Your task to perform on an android device: turn off translation in the chrome app Image 0: 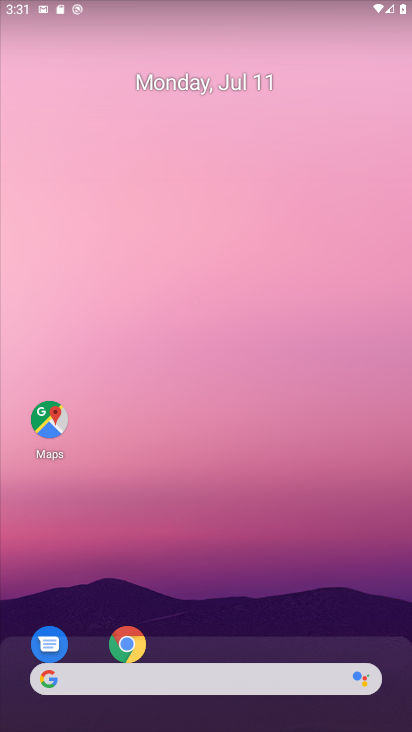
Step 0: drag from (208, 265) to (166, 20)
Your task to perform on an android device: turn off translation in the chrome app Image 1: 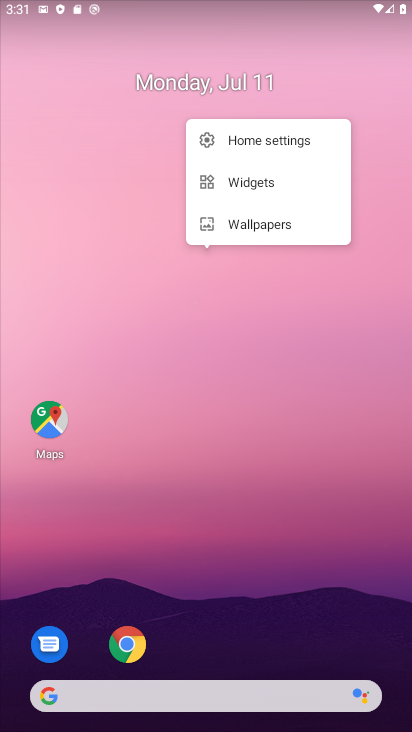
Step 1: drag from (248, 359) to (292, 142)
Your task to perform on an android device: turn off translation in the chrome app Image 2: 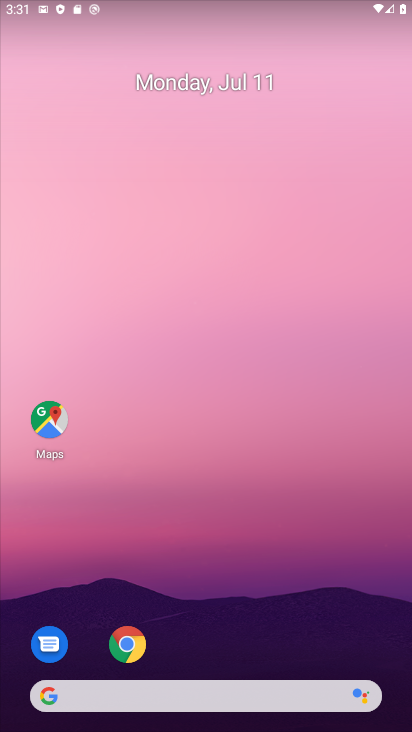
Step 2: drag from (337, 643) to (328, 3)
Your task to perform on an android device: turn off translation in the chrome app Image 3: 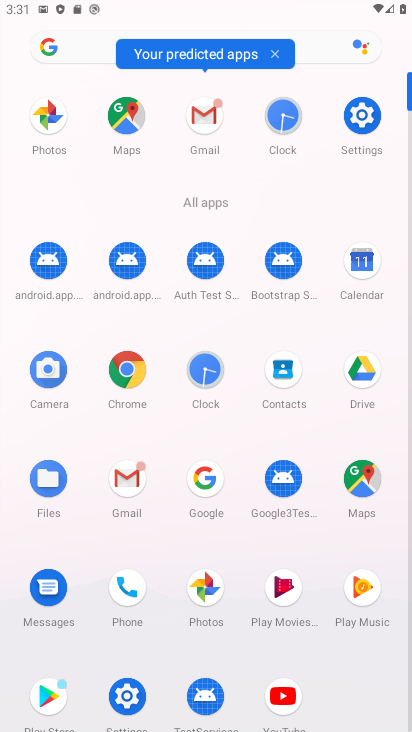
Step 3: click (125, 365)
Your task to perform on an android device: turn off translation in the chrome app Image 4: 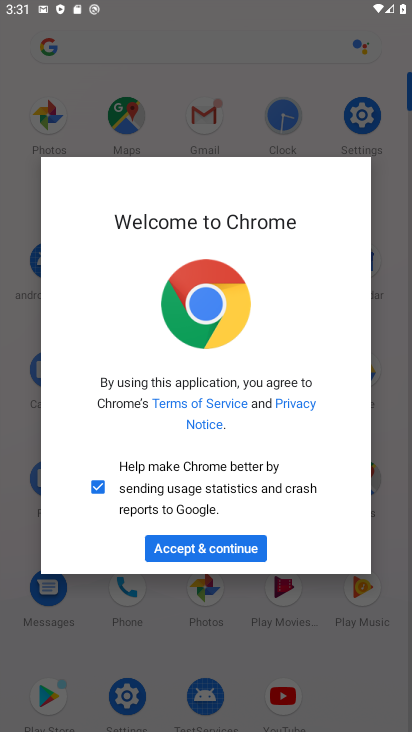
Step 4: click (180, 554)
Your task to perform on an android device: turn off translation in the chrome app Image 5: 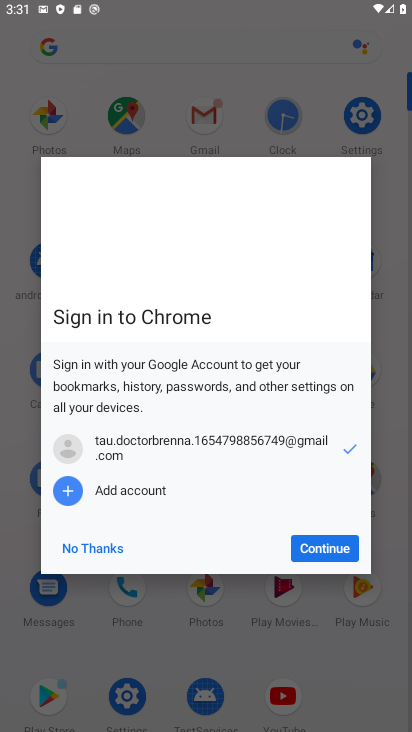
Step 5: click (100, 552)
Your task to perform on an android device: turn off translation in the chrome app Image 6: 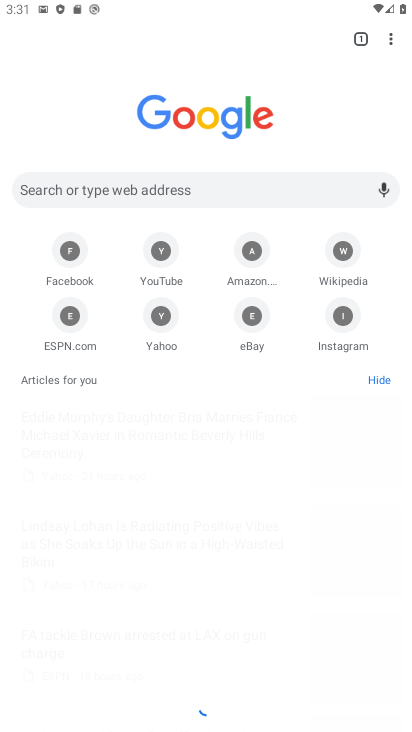
Step 6: click (394, 43)
Your task to perform on an android device: turn off translation in the chrome app Image 7: 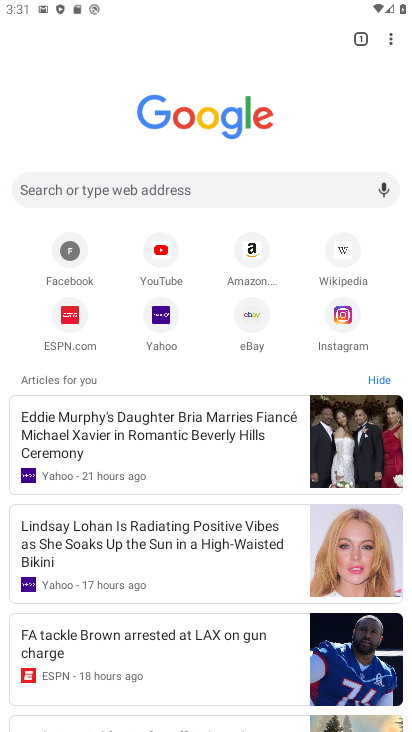
Step 7: click (393, 37)
Your task to perform on an android device: turn off translation in the chrome app Image 8: 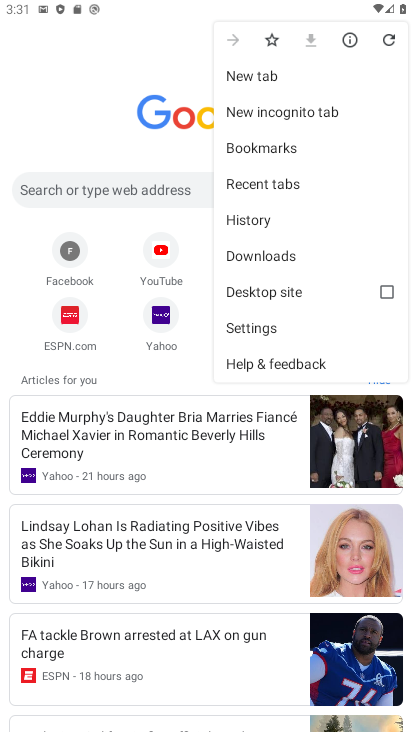
Step 8: drag from (393, 36) to (274, 329)
Your task to perform on an android device: turn off translation in the chrome app Image 9: 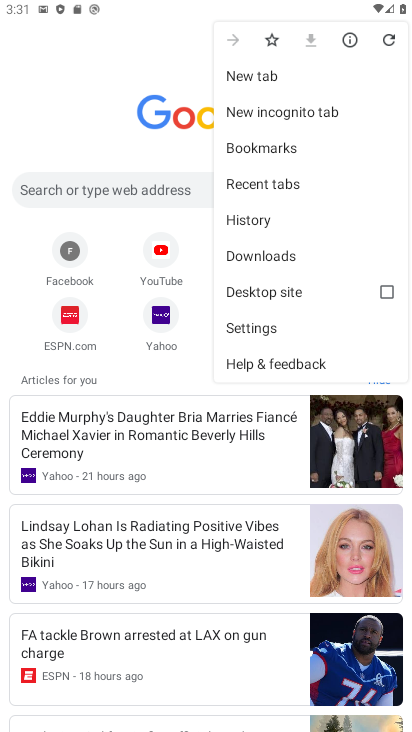
Step 9: click (271, 328)
Your task to perform on an android device: turn off translation in the chrome app Image 10: 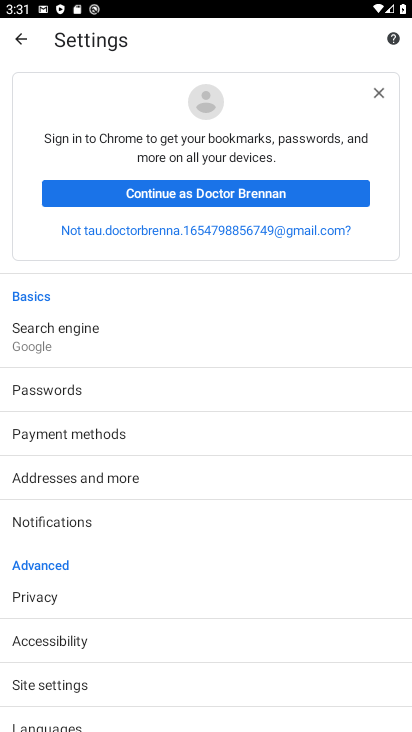
Step 10: drag from (136, 631) to (183, 253)
Your task to perform on an android device: turn off translation in the chrome app Image 11: 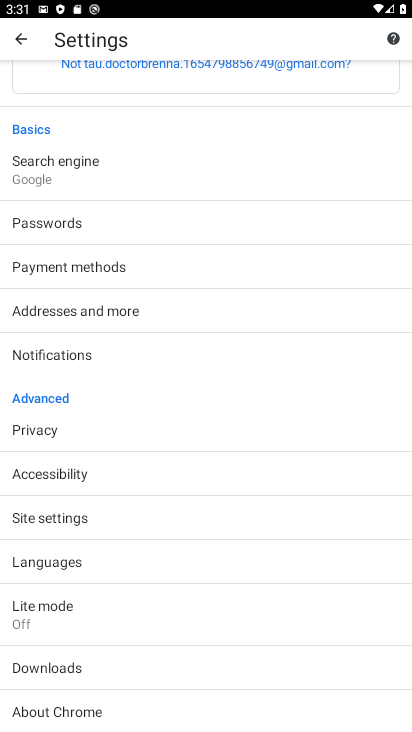
Step 11: click (84, 562)
Your task to perform on an android device: turn off translation in the chrome app Image 12: 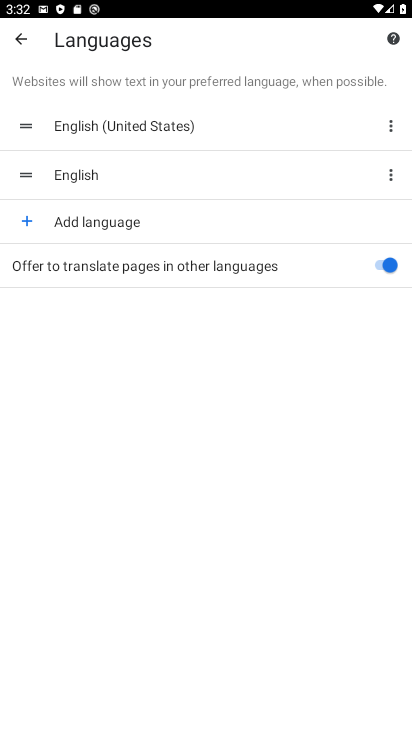
Step 12: click (378, 271)
Your task to perform on an android device: turn off translation in the chrome app Image 13: 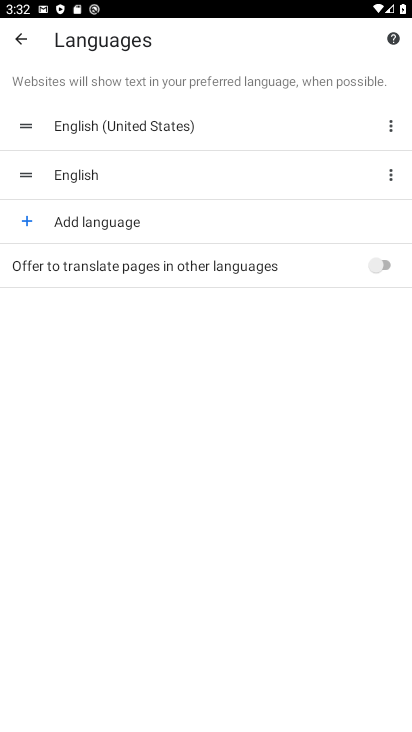
Step 13: task complete